Your task to perform on an android device: Open network settings Image 0: 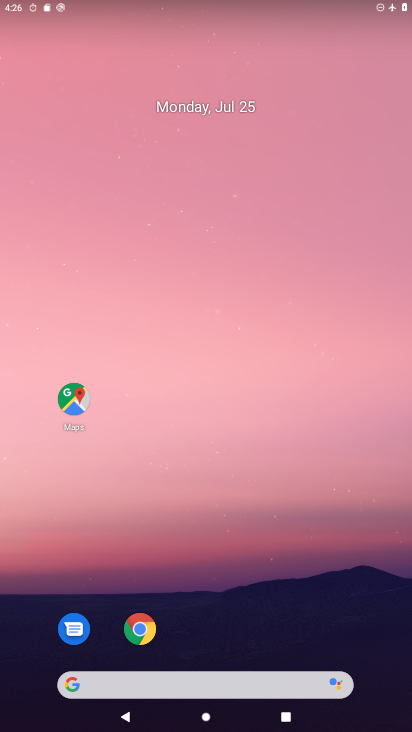
Step 0: drag from (300, 641) to (330, 46)
Your task to perform on an android device: Open network settings Image 1: 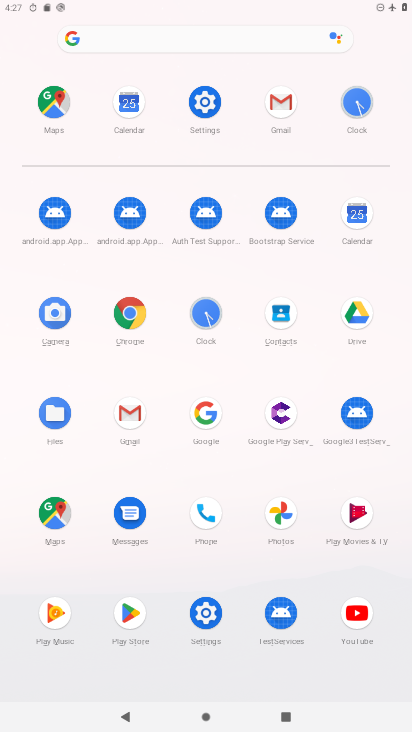
Step 1: click (207, 101)
Your task to perform on an android device: Open network settings Image 2: 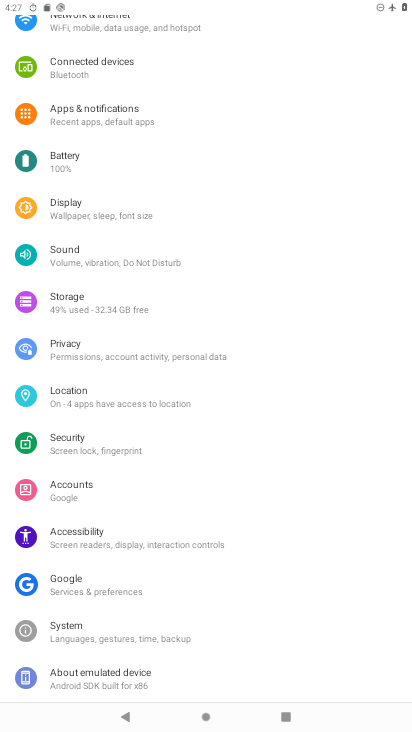
Step 2: drag from (128, 92) to (153, 592)
Your task to perform on an android device: Open network settings Image 3: 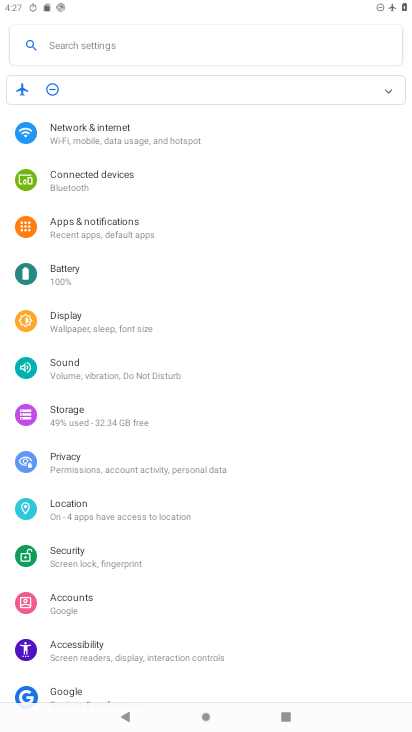
Step 3: click (128, 126)
Your task to perform on an android device: Open network settings Image 4: 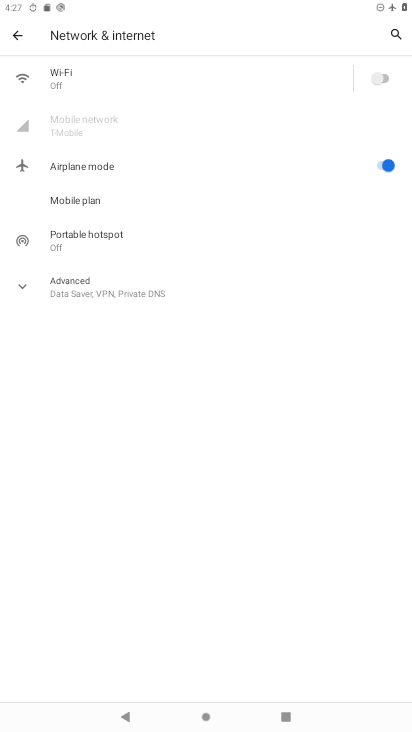
Step 4: task complete